Your task to perform on an android device: check storage Image 0: 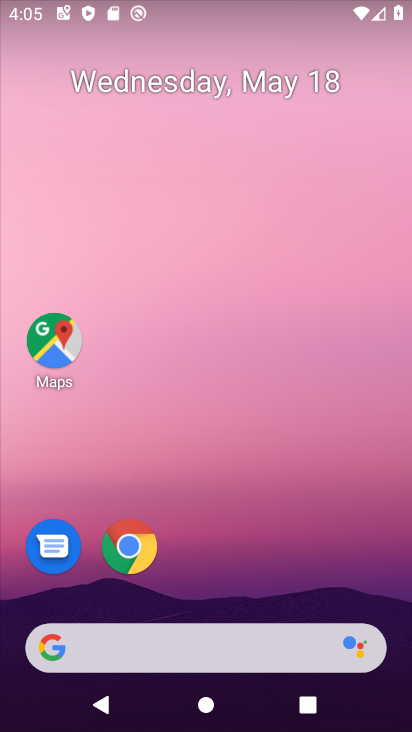
Step 0: drag from (211, 581) to (333, 17)
Your task to perform on an android device: check storage Image 1: 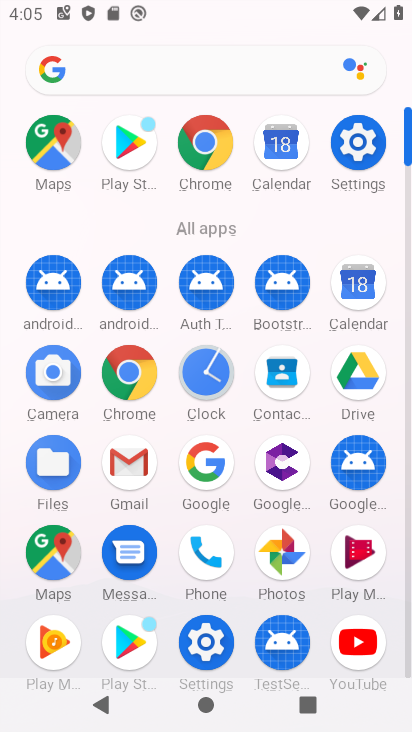
Step 1: click (351, 170)
Your task to perform on an android device: check storage Image 2: 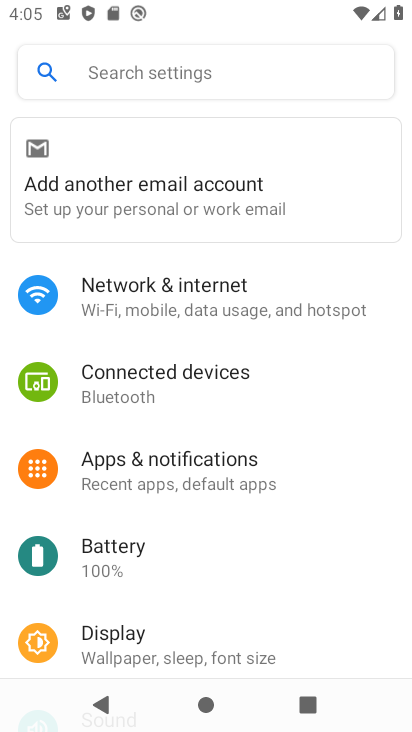
Step 2: drag from (198, 583) to (258, 230)
Your task to perform on an android device: check storage Image 3: 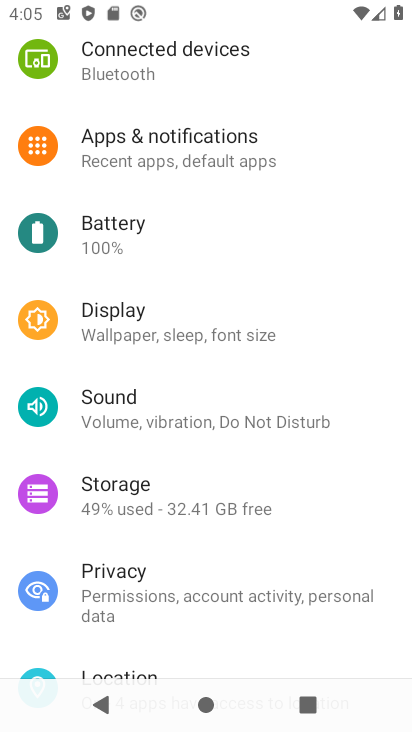
Step 3: click (149, 496)
Your task to perform on an android device: check storage Image 4: 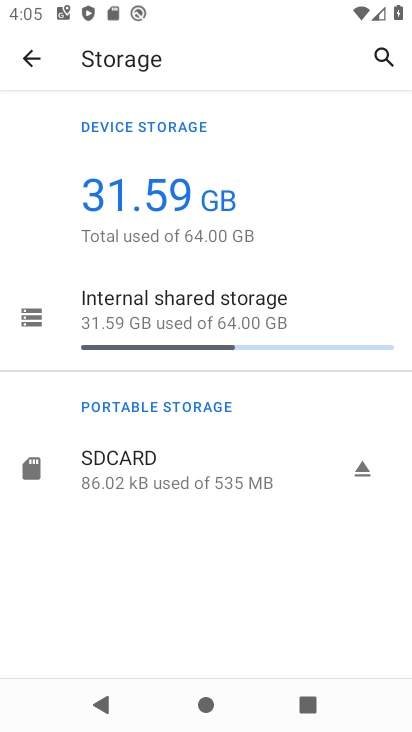
Step 4: click (188, 320)
Your task to perform on an android device: check storage Image 5: 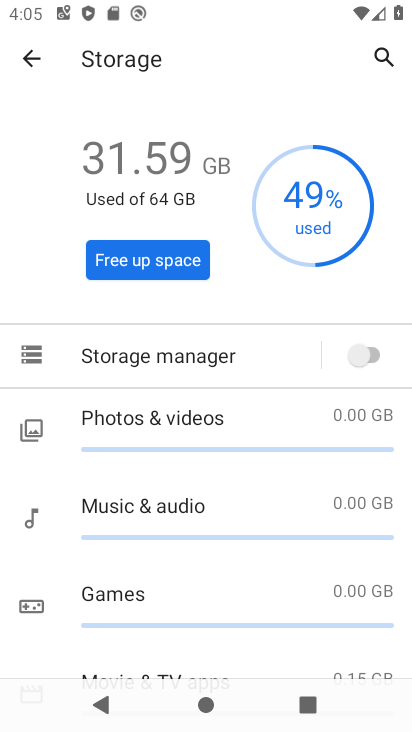
Step 5: task complete